Your task to perform on an android device: Open calendar and show me the second week of next month Image 0: 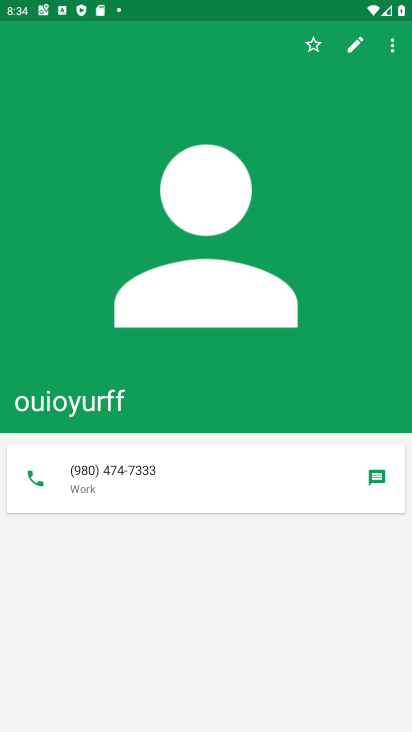
Step 0: drag from (382, 633) to (367, 508)
Your task to perform on an android device: Open calendar and show me the second week of next month Image 1: 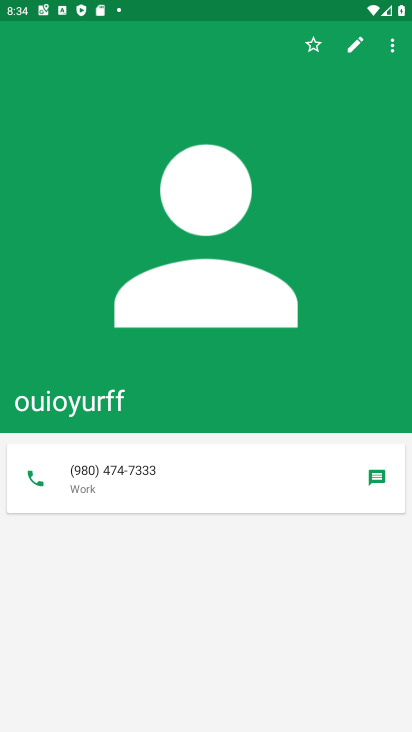
Step 1: press home button
Your task to perform on an android device: Open calendar and show me the second week of next month Image 2: 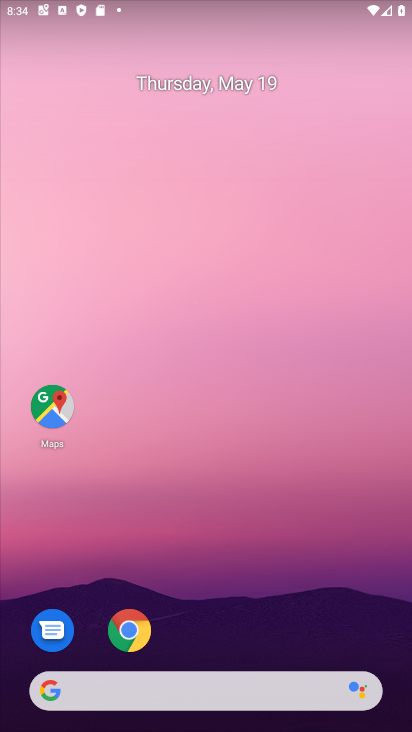
Step 2: drag from (388, 639) to (325, 102)
Your task to perform on an android device: Open calendar and show me the second week of next month Image 3: 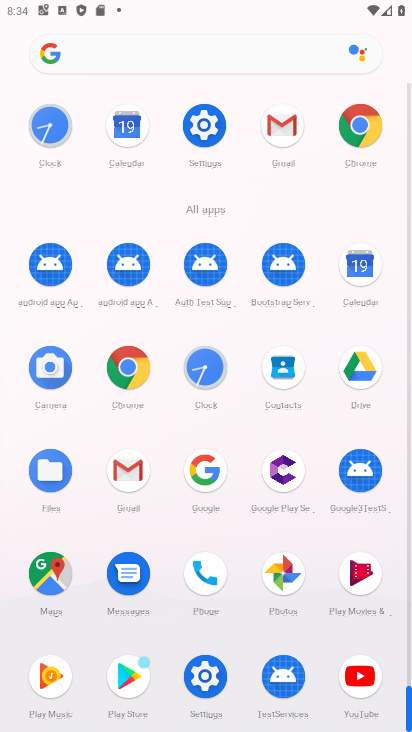
Step 3: click (361, 263)
Your task to perform on an android device: Open calendar and show me the second week of next month Image 4: 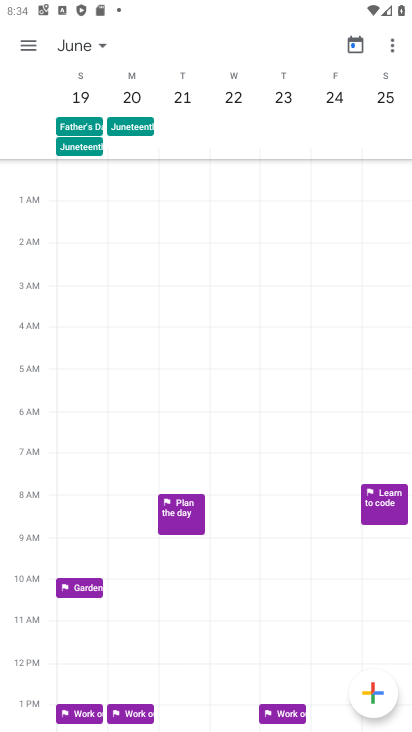
Step 4: click (106, 47)
Your task to perform on an android device: Open calendar and show me the second week of next month Image 5: 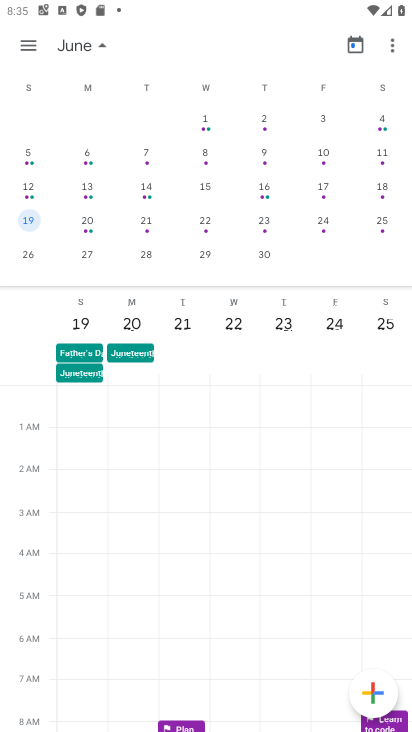
Step 5: click (23, 149)
Your task to perform on an android device: Open calendar and show me the second week of next month Image 6: 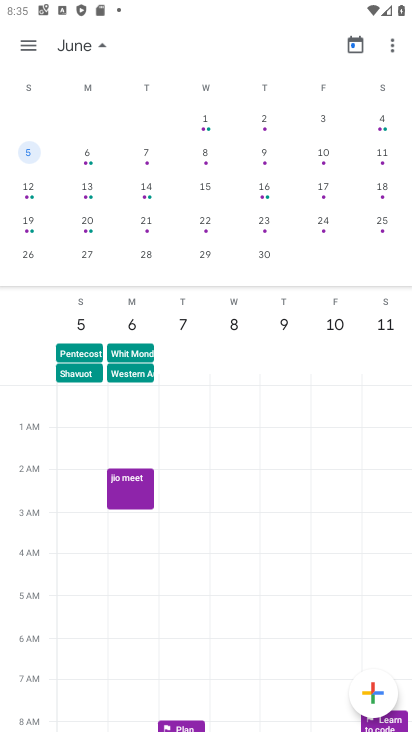
Step 6: task complete